Your task to perform on an android device: Search for seafood restaurants on Google Maps Image 0: 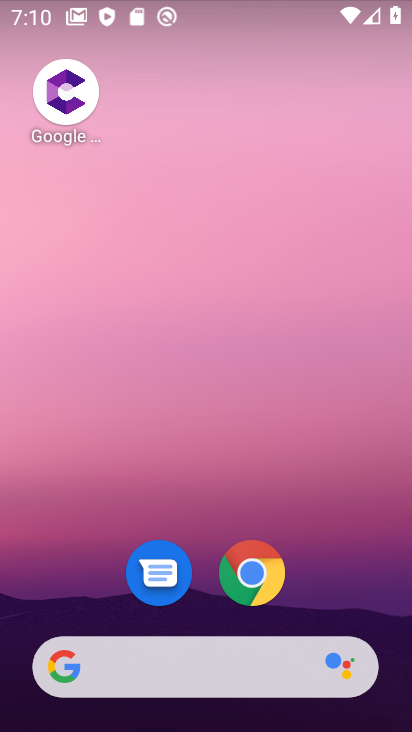
Step 0: drag from (389, 524) to (389, 275)
Your task to perform on an android device: Search for seafood restaurants on Google Maps Image 1: 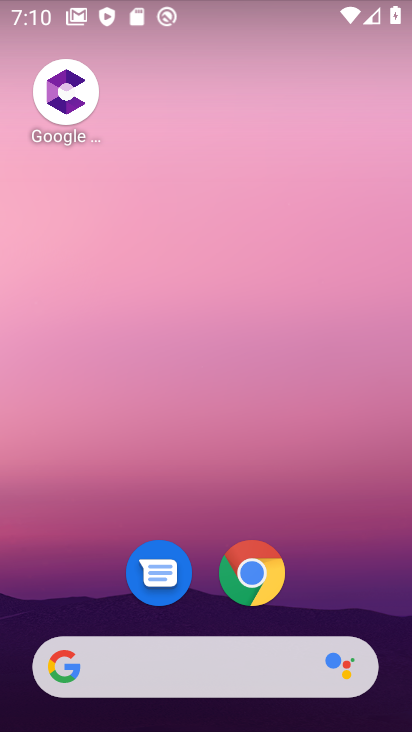
Step 1: drag from (393, 618) to (375, 171)
Your task to perform on an android device: Search for seafood restaurants on Google Maps Image 2: 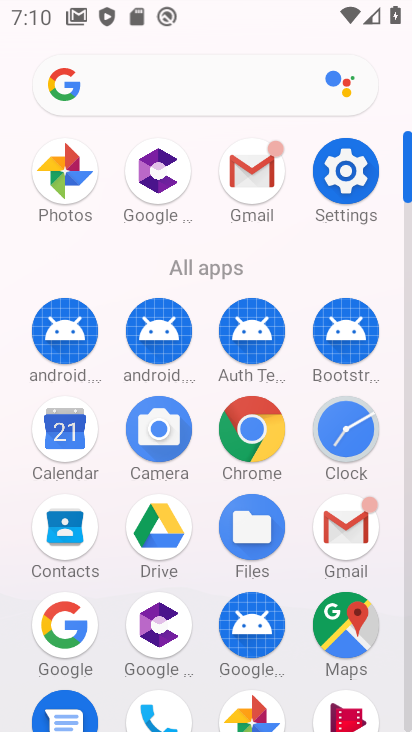
Step 2: click (355, 599)
Your task to perform on an android device: Search for seafood restaurants on Google Maps Image 3: 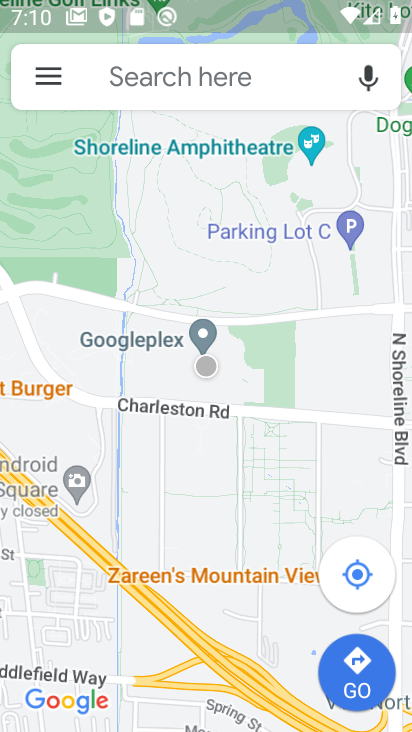
Step 3: click (137, 77)
Your task to perform on an android device: Search for seafood restaurants on Google Maps Image 4: 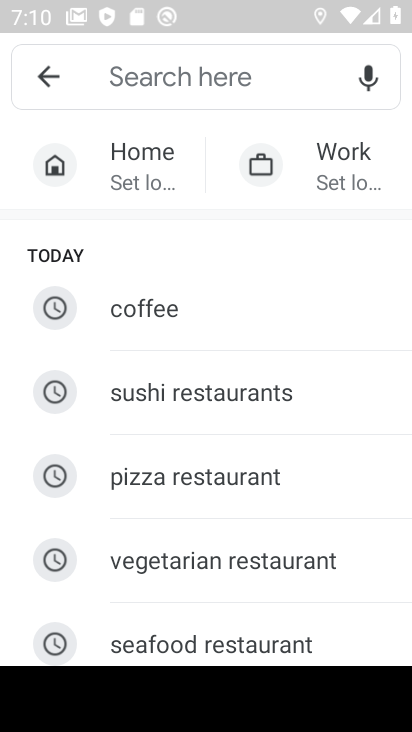
Step 4: type "seafood restaurant"
Your task to perform on an android device: Search for seafood restaurants on Google Maps Image 5: 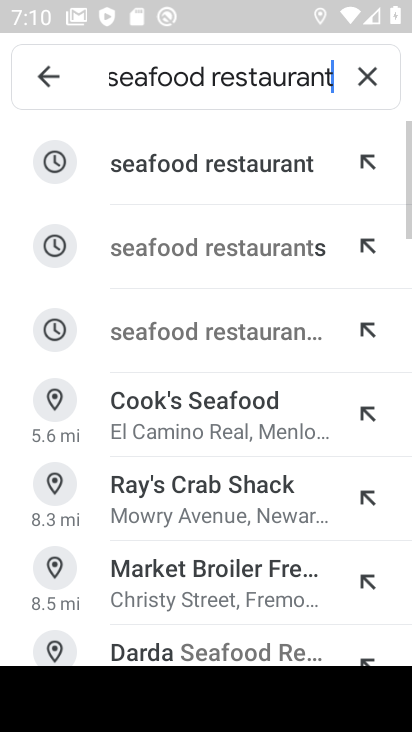
Step 5: click (167, 157)
Your task to perform on an android device: Search for seafood restaurants on Google Maps Image 6: 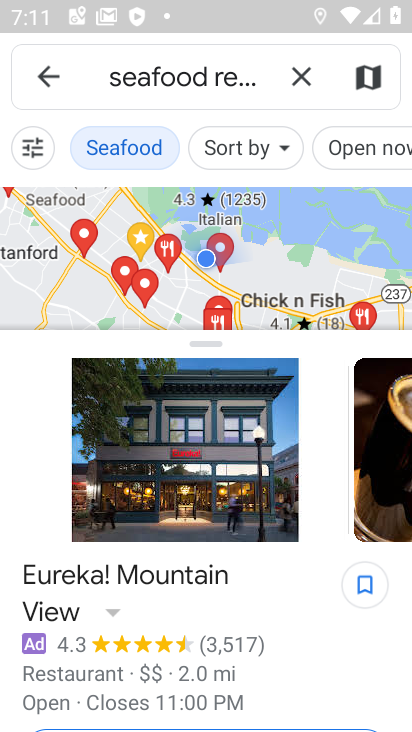
Step 6: task complete